Your task to perform on an android device: turn on javascript in the chrome app Image 0: 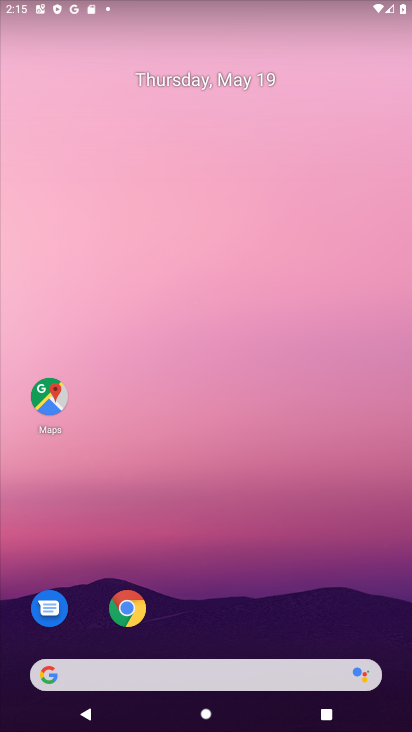
Step 0: drag from (209, 621) to (167, 139)
Your task to perform on an android device: turn on javascript in the chrome app Image 1: 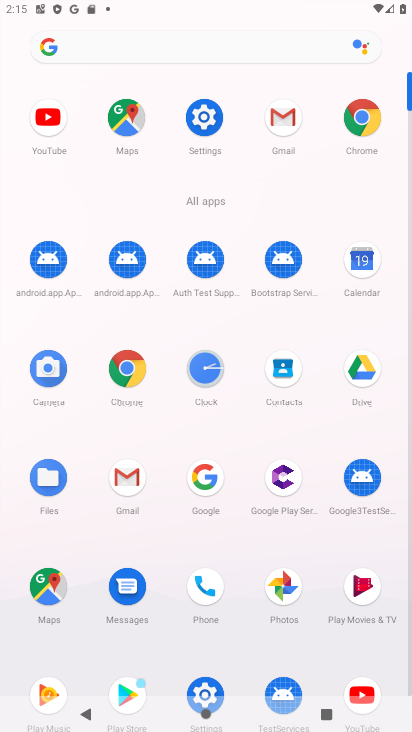
Step 1: click (348, 116)
Your task to perform on an android device: turn on javascript in the chrome app Image 2: 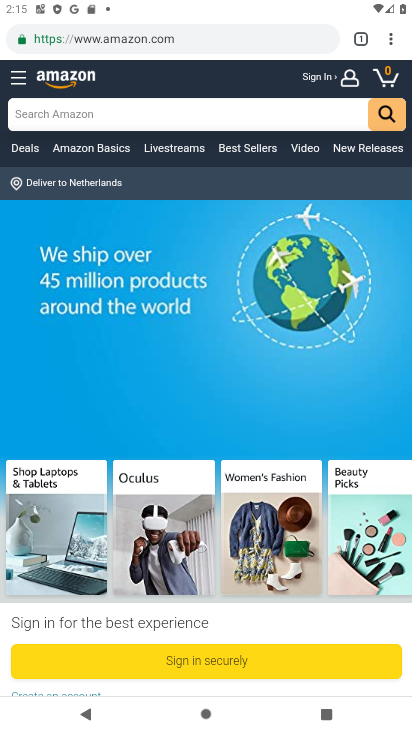
Step 2: click (393, 36)
Your task to perform on an android device: turn on javascript in the chrome app Image 3: 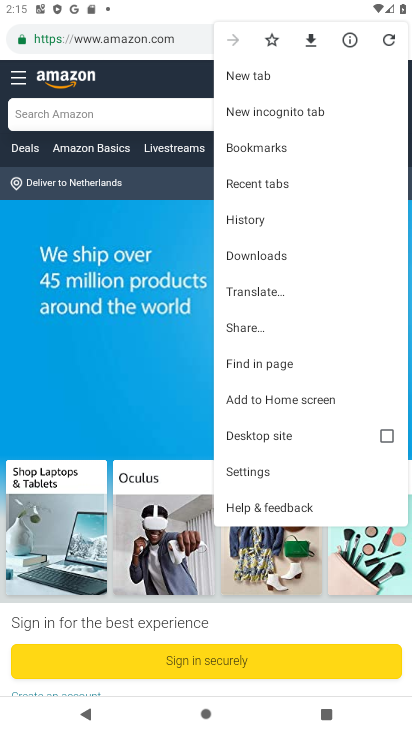
Step 3: click (284, 469)
Your task to perform on an android device: turn on javascript in the chrome app Image 4: 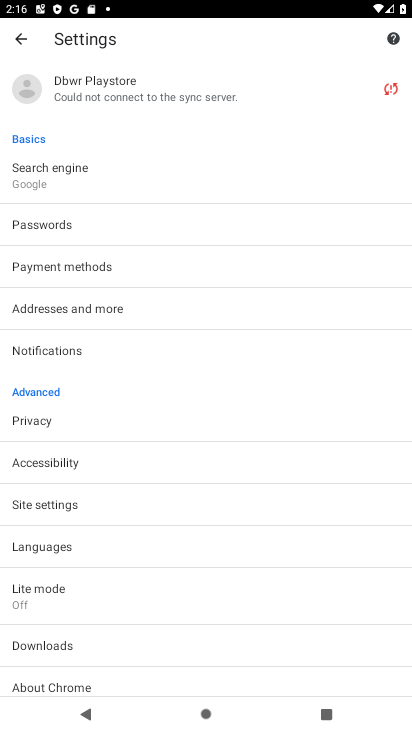
Step 4: click (261, 506)
Your task to perform on an android device: turn on javascript in the chrome app Image 5: 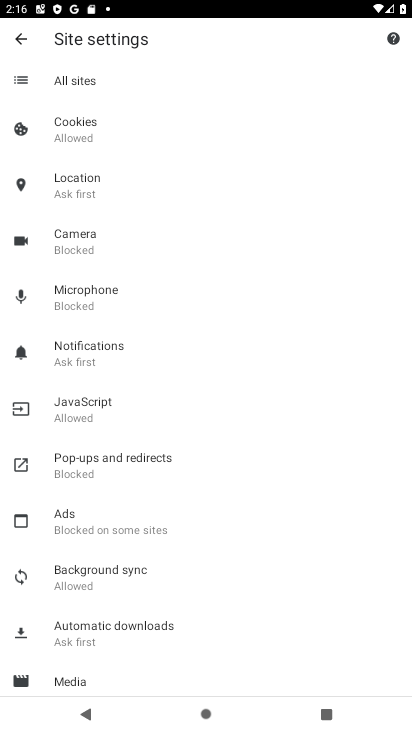
Step 5: click (230, 417)
Your task to perform on an android device: turn on javascript in the chrome app Image 6: 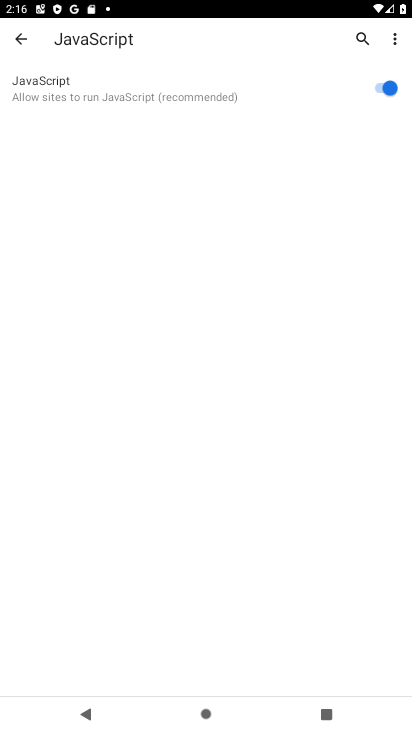
Step 6: task complete